Your task to perform on an android device: Open the map Image 0: 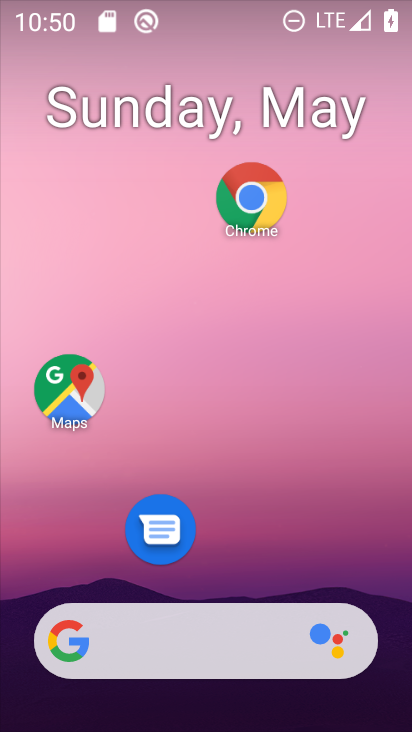
Step 0: drag from (243, 572) to (306, 52)
Your task to perform on an android device: Open the map Image 1: 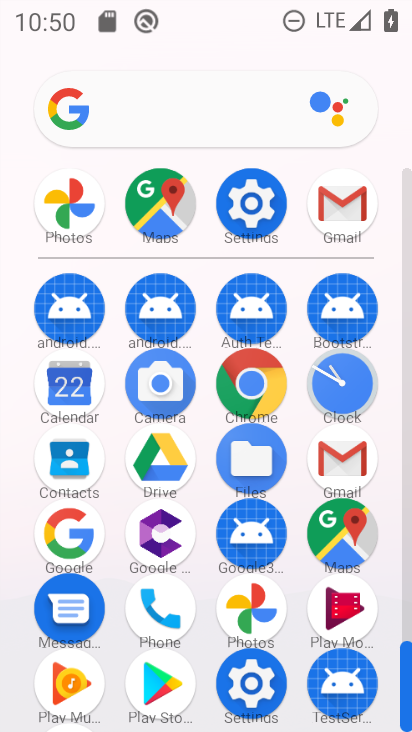
Step 1: click (168, 199)
Your task to perform on an android device: Open the map Image 2: 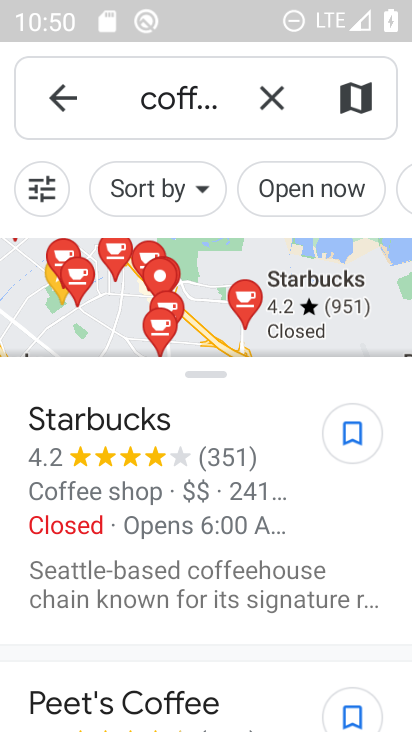
Step 2: click (69, 104)
Your task to perform on an android device: Open the map Image 3: 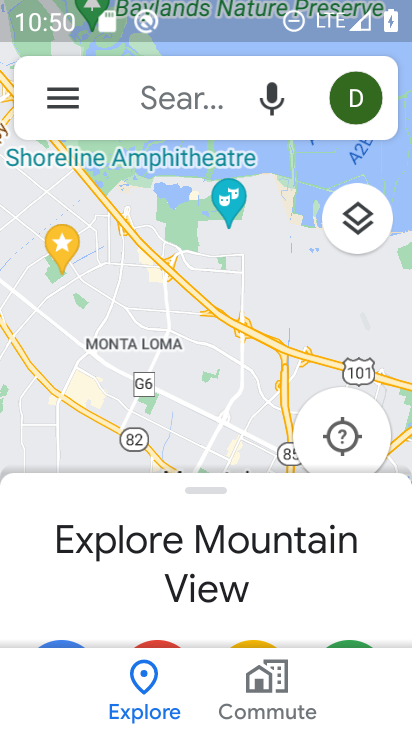
Step 3: task complete